Your task to perform on an android device: Go to Yahoo.com Image 0: 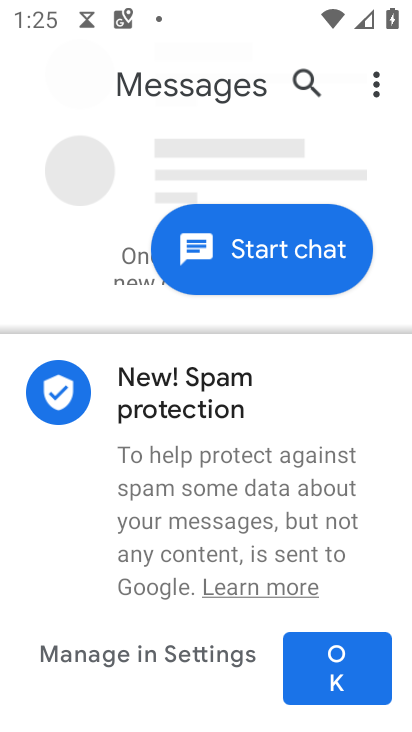
Step 0: press home button
Your task to perform on an android device: Go to Yahoo.com Image 1: 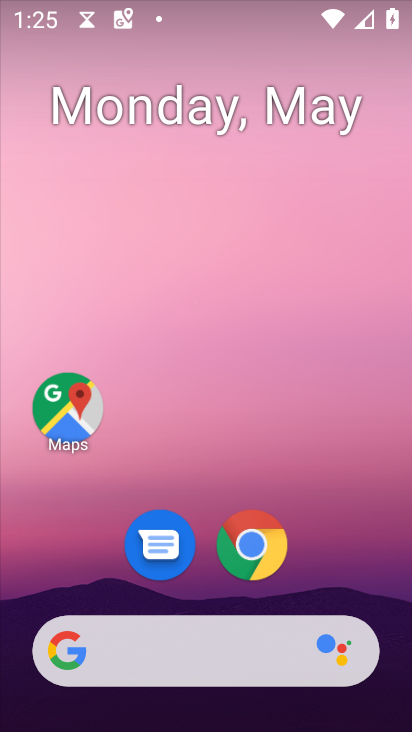
Step 1: click (251, 524)
Your task to perform on an android device: Go to Yahoo.com Image 2: 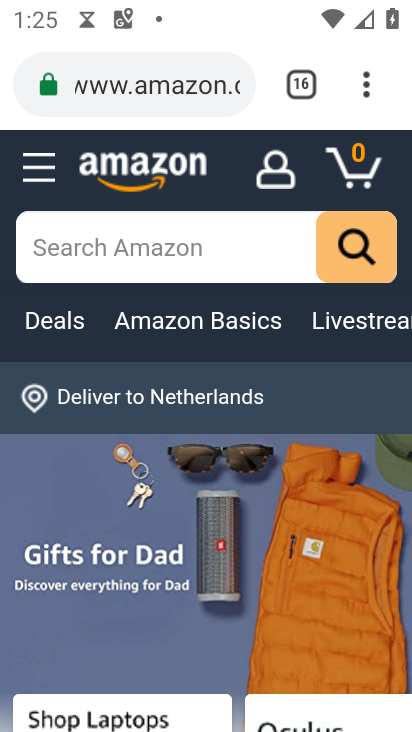
Step 2: click (366, 81)
Your task to perform on an android device: Go to Yahoo.com Image 3: 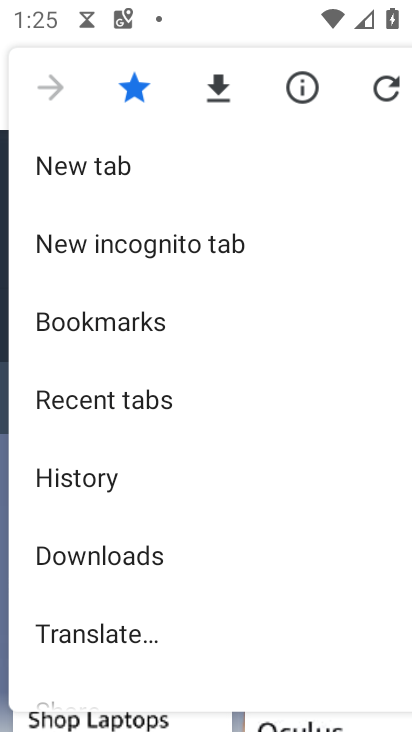
Step 3: click (108, 161)
Your task to perform on an android device: Go to Yahoo.com Image 4: 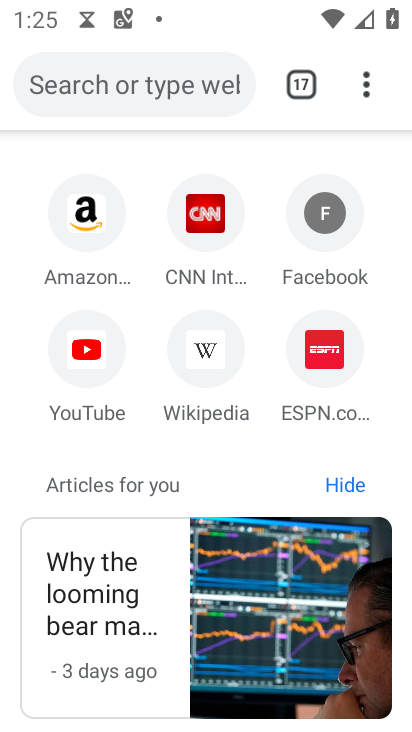
Step 4: click (172, 70)
Your task to perform on an android device: Go to Yahoo.com Image 5: 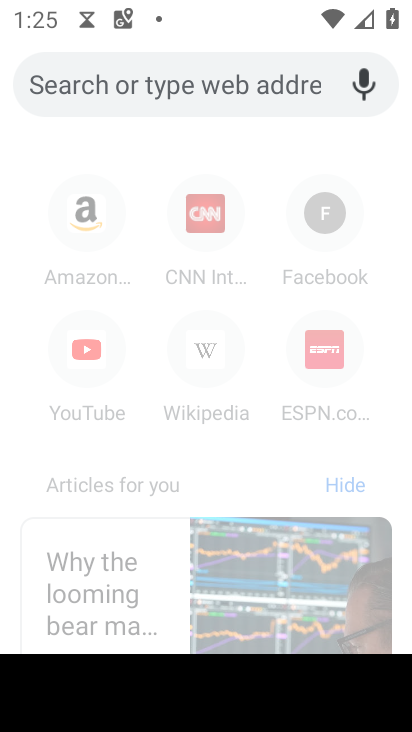
Step 5: type "Yahoo.com"
Your task to perform on an android device: Go to Yahoo.com Image 6: 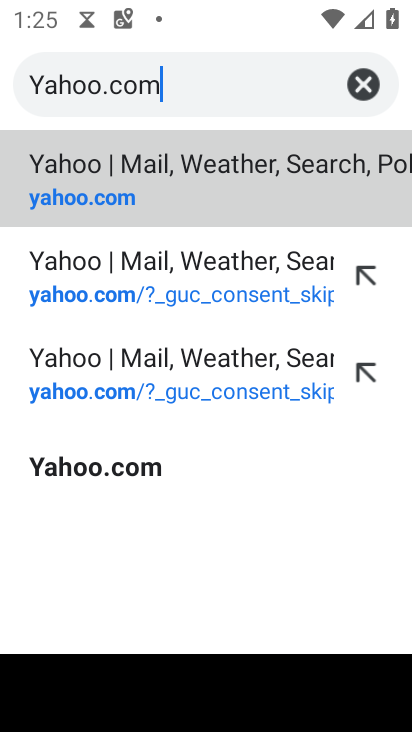
Step 6: click (147, 195)
Your task to perform on an android device: Go to Yahoo.com Image 7: 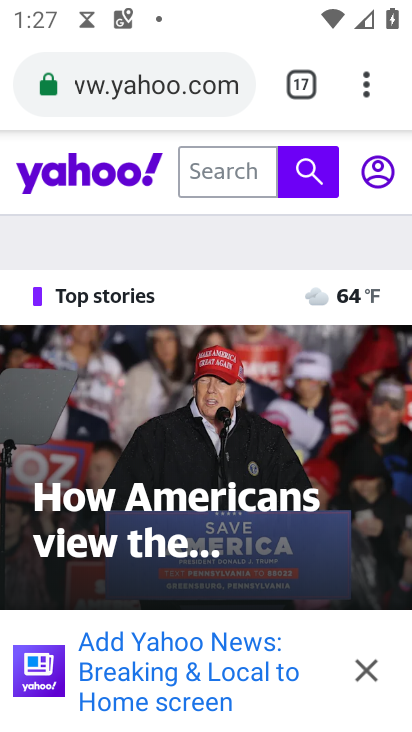
Step 7: task complete